Your task to perform on an android device: open a bookmark in the chrome app Image 0: 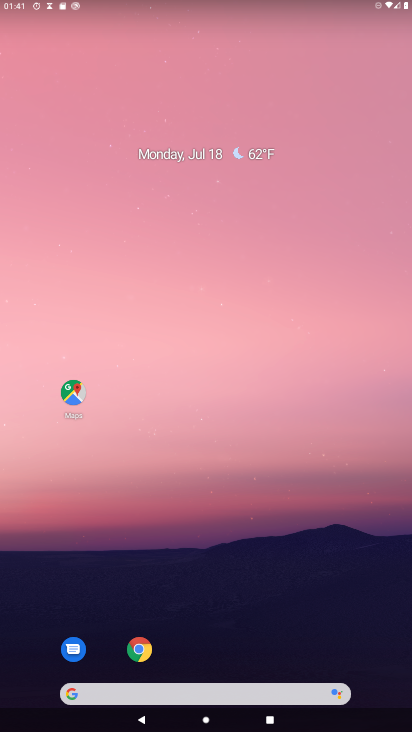
Step 0: click (130, 649)
Your task to perform on an android device: open a bookmark in the chrome app Image 1: 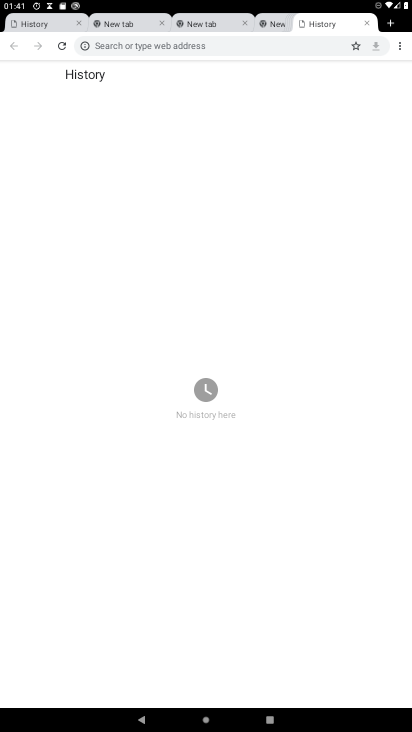
Step 1: click (403, 48)
Your task to perform on an android device: open a bookmark in the chrome app Image 2: 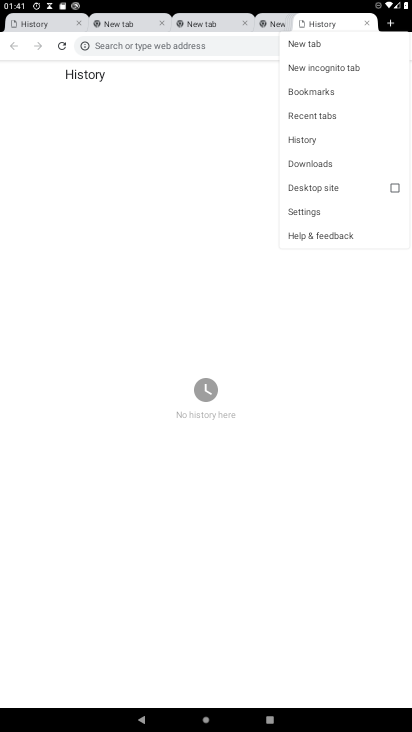
Step 2: click (314, 92)
Your task to perform on an android device: open a bookmark in the chrome app Image 3: 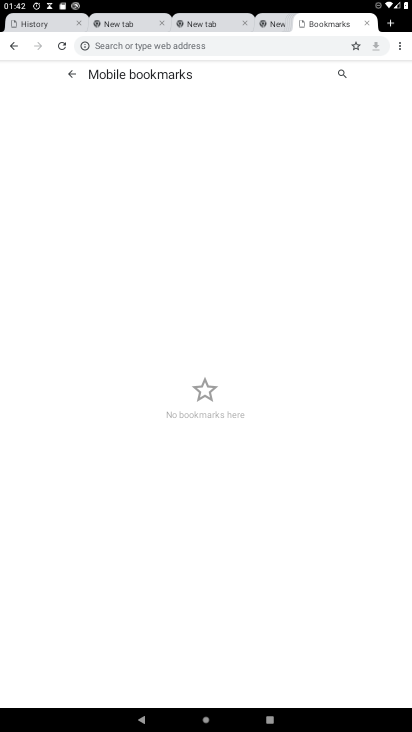
Step 3: task complete